Your task to perform on an android device: empty trash in the gmail app Image 0: 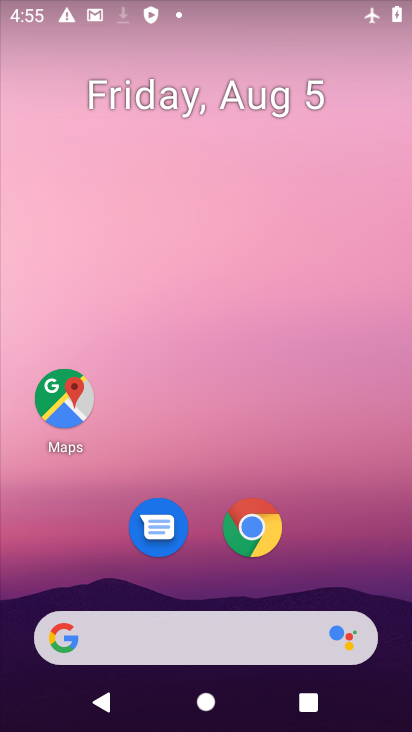
Step 0: drag from (235, 637) to (223, 281)
Your task to perform on an android device: empty trash in the gmail app Image 1: 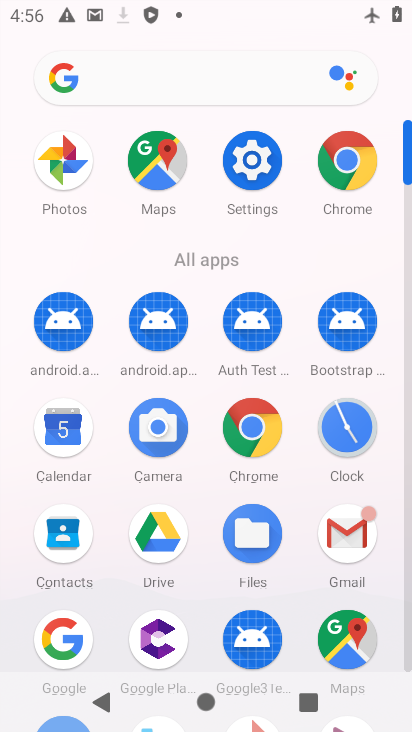
Step 1: click (329, 540)
Your task to perform on an android device: empty trash in the gmail app Image 2: 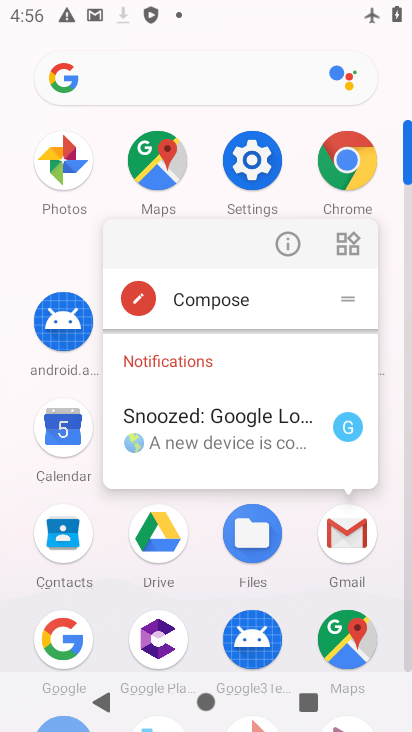
Step 2: click (285, 248)
Your task to perform on an android device: empty trash in the gmail app Image 3: 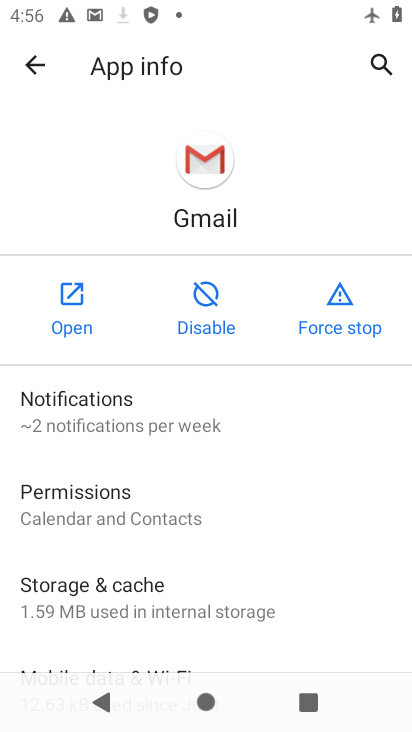
Step 3: click (78, 297)
Your task to perform on an android device: empty trash in the gmail app Image 4: 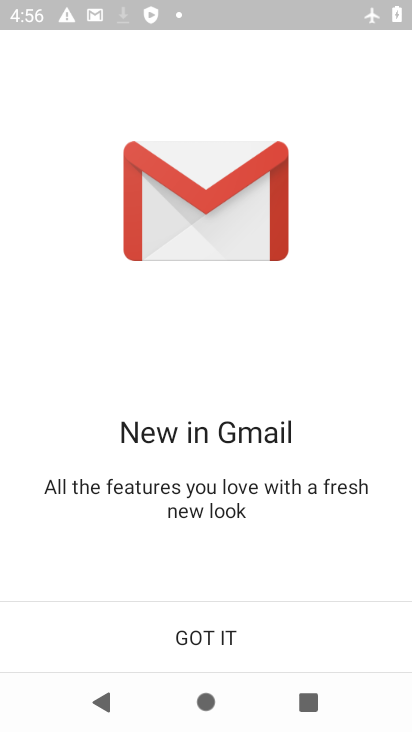
Step 4: click (216, 630)
Your task to perform on an android device: empty trash in the gmail app Image 5: 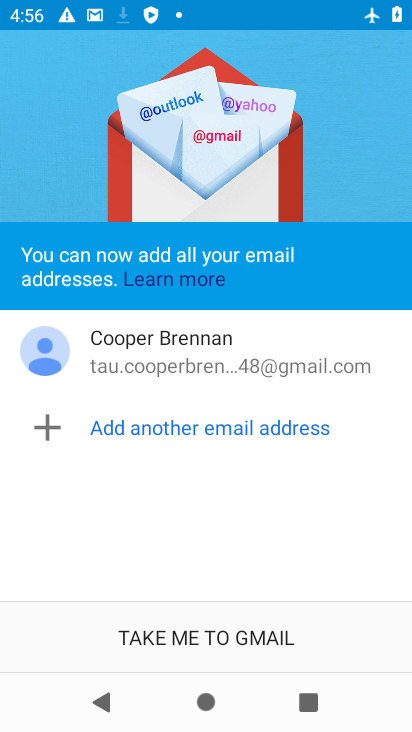
Step 5: click (220, 620)
Your task to perform on an android device: empty trash in the gmail app Image 6: 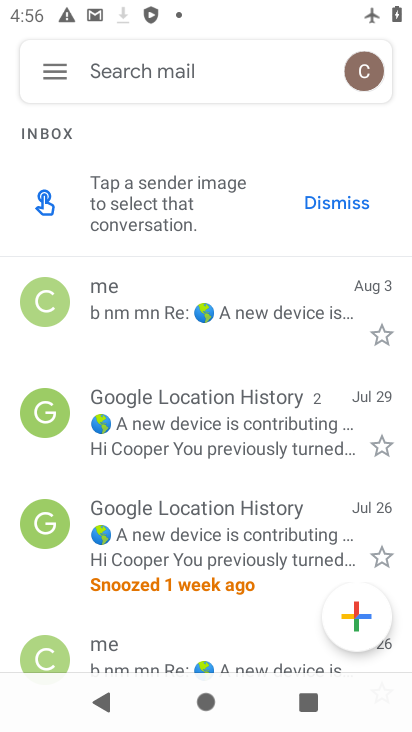
Step 6: click (34, 73)
Your task to perform on an android device: empty trash in the gmail app Image 7: 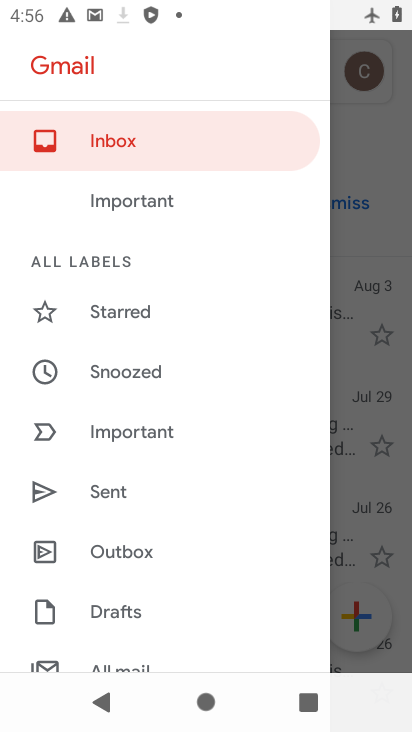
Step 7: drag from (116, 627) to (155, 275)
Your task to perform on an android device: empty trash in the gmail app Image 8: 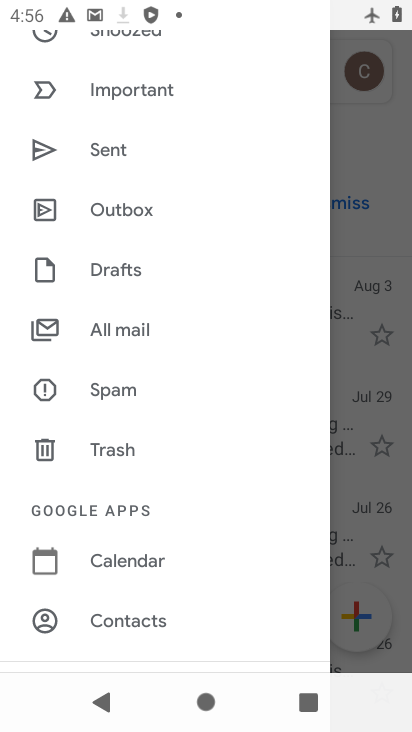
Step 8: click (111, 452)
Your task to perform on an android device: empty trash in the gmail app Image 9: 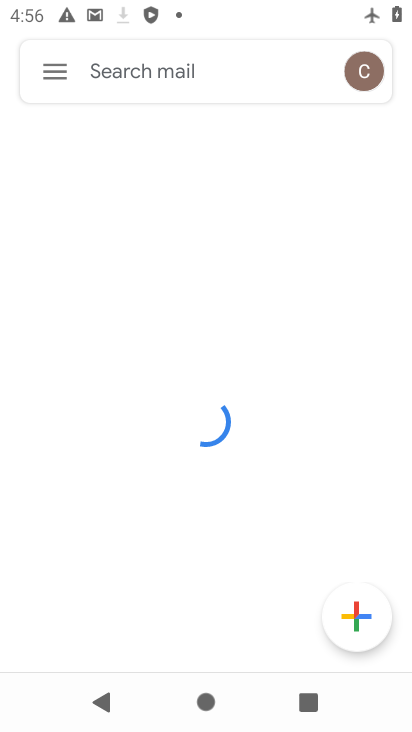
Step 9: drag from (212, 533) to (199, 122)
Your task to perform on an android device: empty trash in the gmail app Image 10: 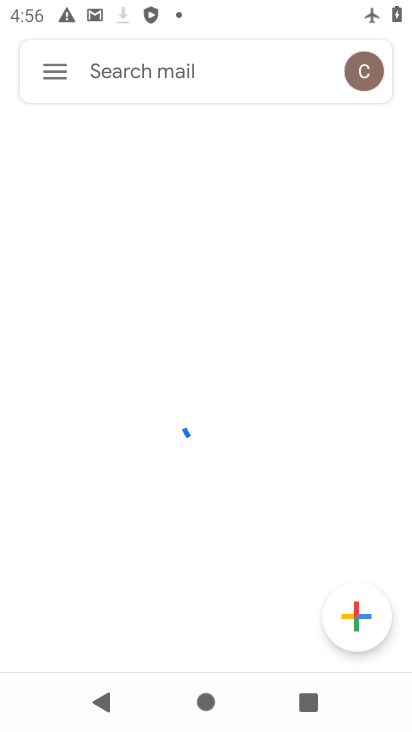
Step 10: drag from (182, 391) to (229, 156)
Your task to perform on an android device: empty trash in the gmail app Image 11: 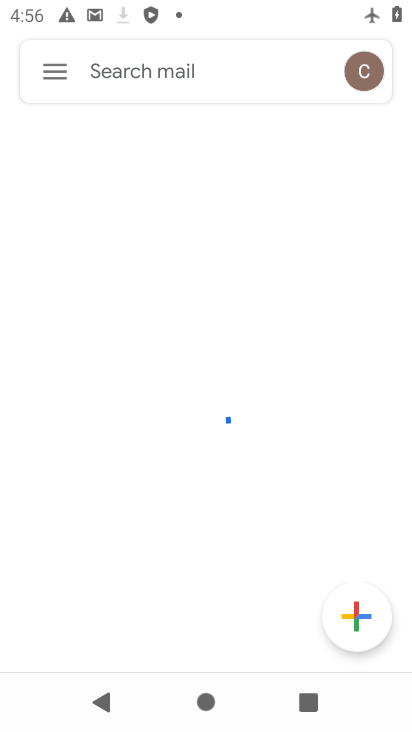
Step 11: drag from (202, 489) to (254, 303)
Your task to perform on an android device: empty trash in the gmail app Image 12: 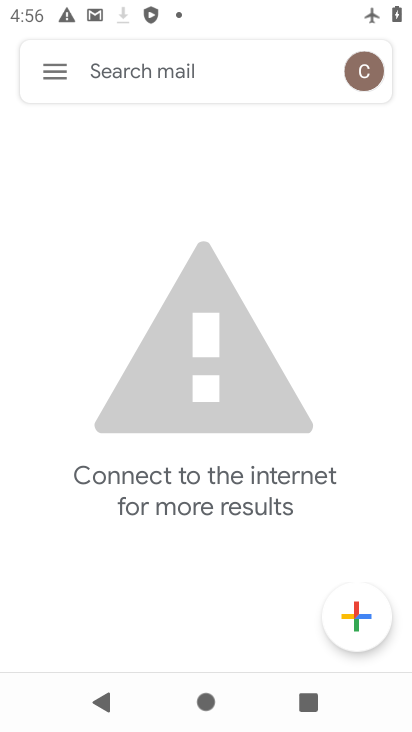
Step 12: drag from (182, 574) to (223, 319)
Your task to perform on an android device: empty trash in the gmail app Image 13: 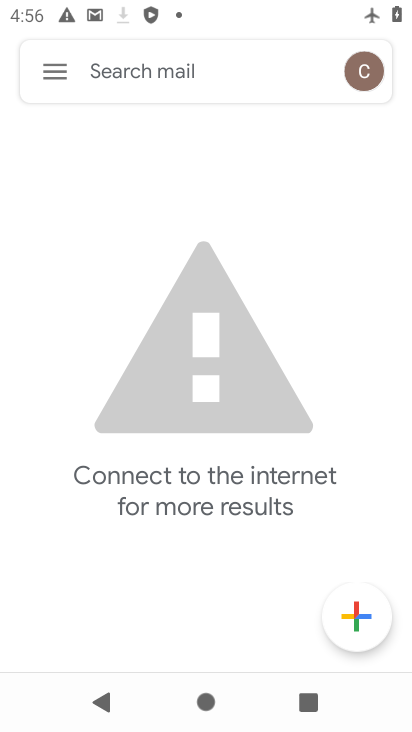
Step 13: drag from (224, 591) to (181, 297)
Your task to perform on an android device: empty trash in the gmail app Image 14: 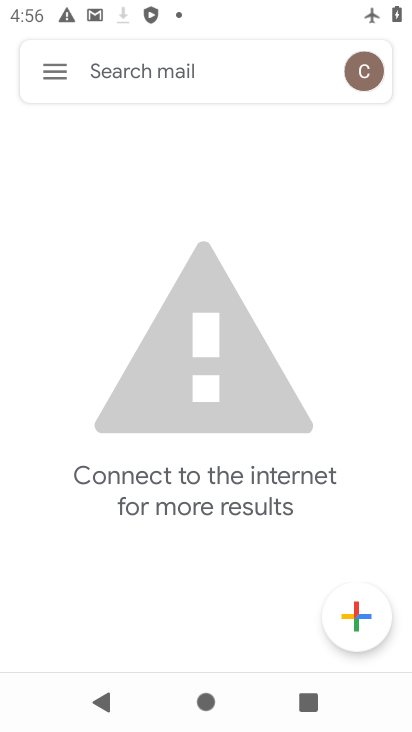
Step 14: click (46, 73)
Your task to perform on an android device: empty trash in the gmail app Image 15: 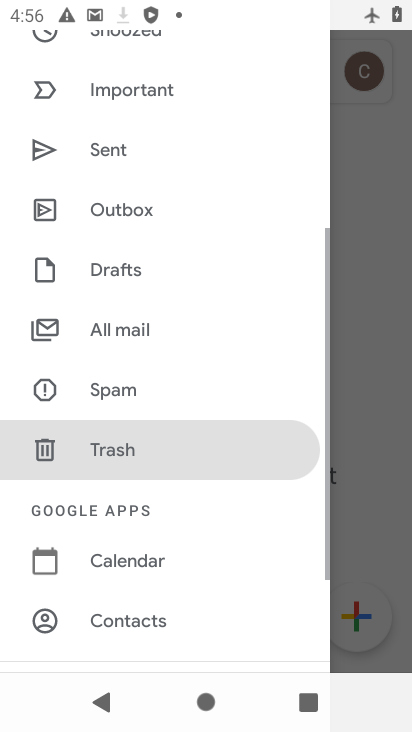
Step 15: click (118, 459)
Your task to perform on an android device: empty trash in the gmail app Image 16: 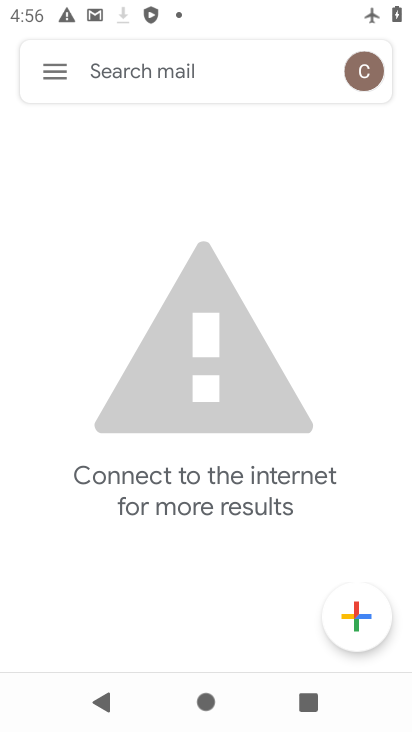
Step 16: click (341, 453)
Your task to perform on an android device: empty trash in the gmail app Image 17: 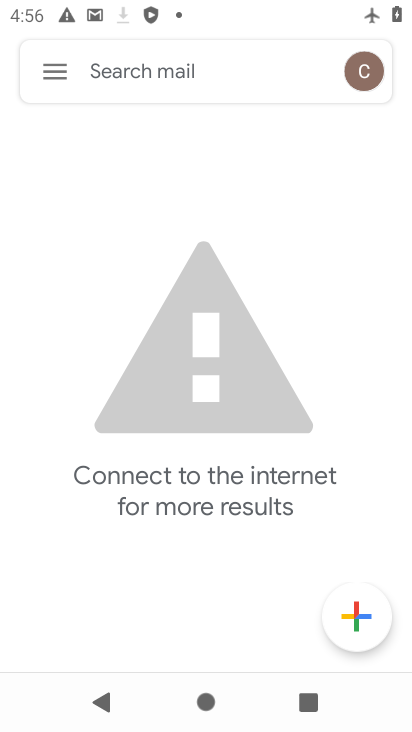
Step 17: task complete